Your task to perform on an android device: set the timer Image 0: 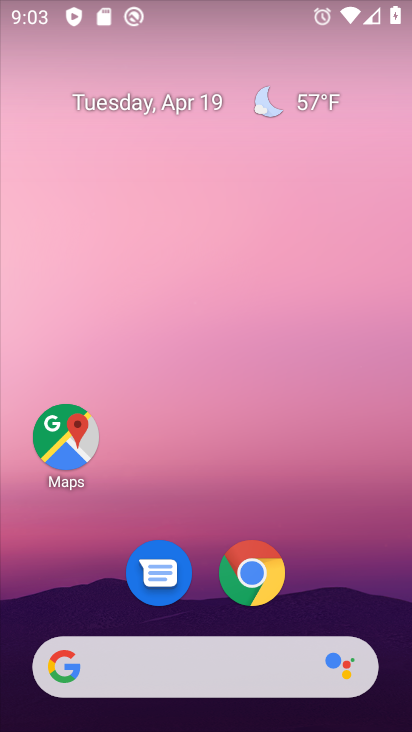
Step 0: drag from (317, 578) to (287, 115)
Your task to perform on an android device: set the timer Image 1: 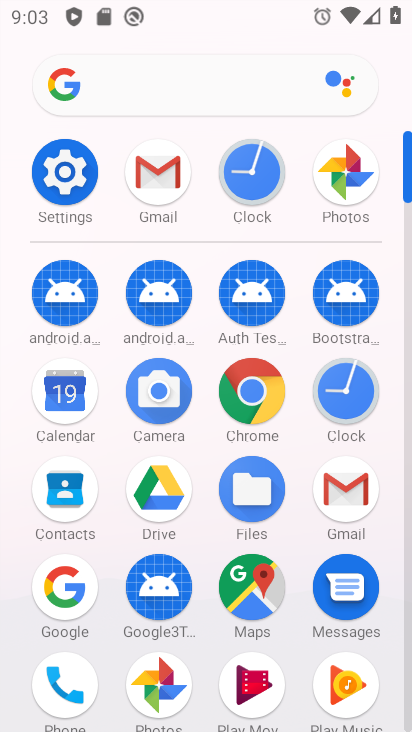
Step 1: click (268, 164)
Your task to perform on an android device: set the timer Image 2: 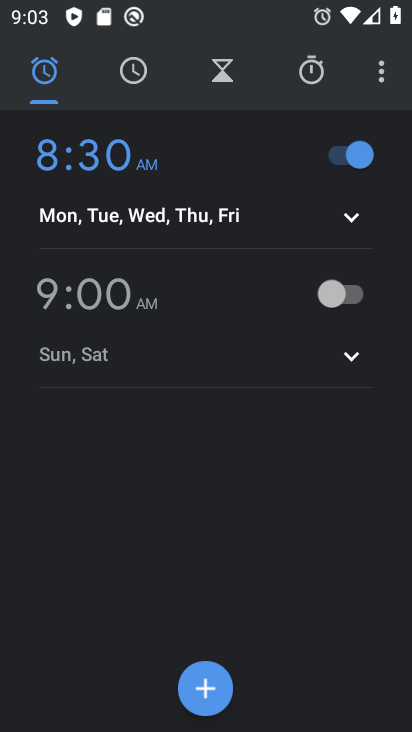
Step 2: click (232, 68)
Your task to perform on an android device: set the timer Image 3: 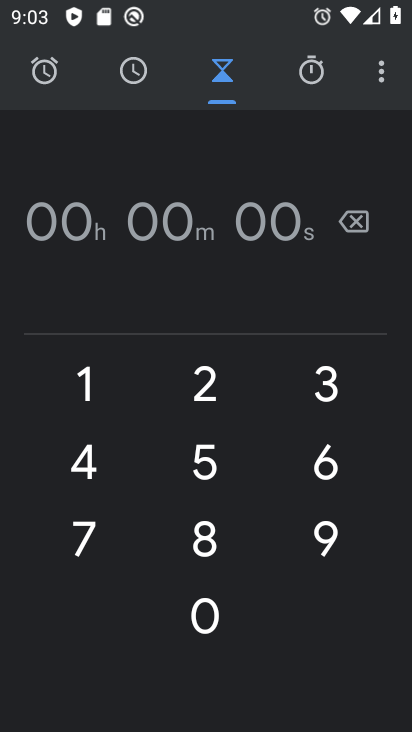
Step 3: click (205, 388)
Your task to perform on an android device: set the timer Image 4: 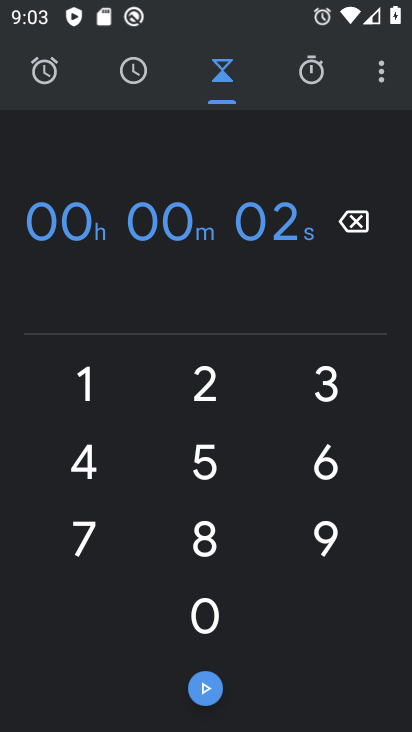
Step 4: click (332, 376)
Your task to perform on an android device: set the timer Image 5: 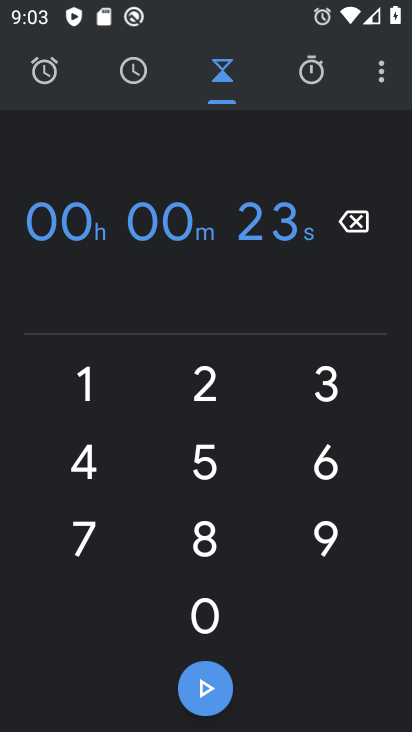
Step 5: click (195, 531)
Your task to perform on an android device: set the timer Image 6: 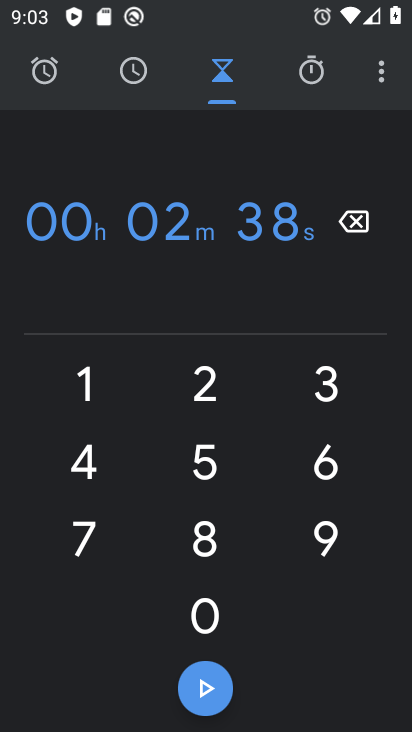
Step 6: click (322, 539)
Your task to perform on an android device: set the timer Image 7: 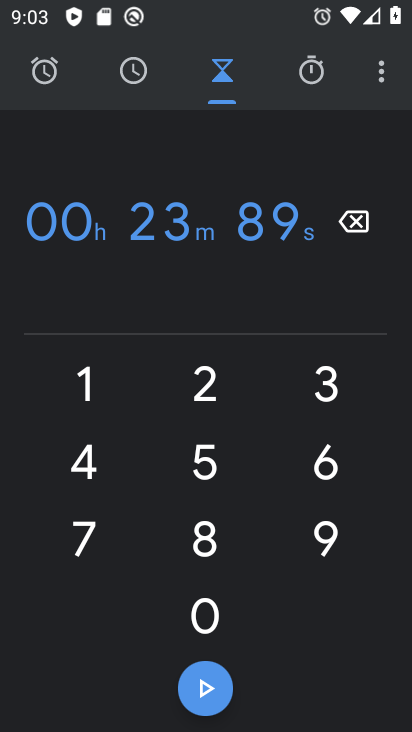
Step 7: click (202, 447)
Your task to perform on an android device: set the timer Image 8: 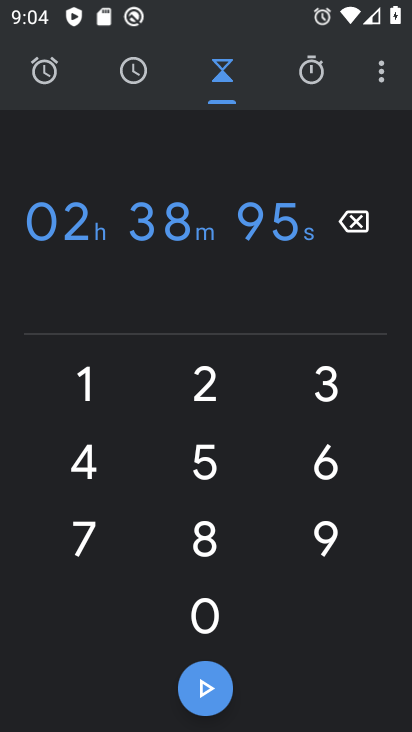
Step 8: click (211, 682)
Your task to perform on an android device: set the timer Image 9: 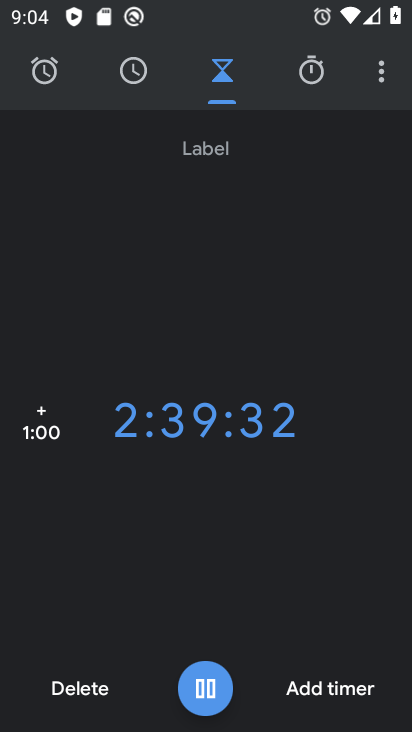
Step 9: task complete